Your task to perform on an android device: turn off priority inbox in the gmail app Image 0: 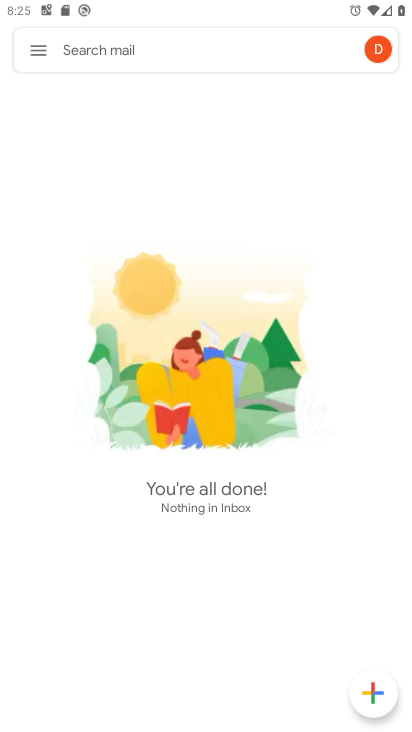
Step 0: press back button
Your task to perform on an android device: turn off priority inbox in the gmail app Image 1: 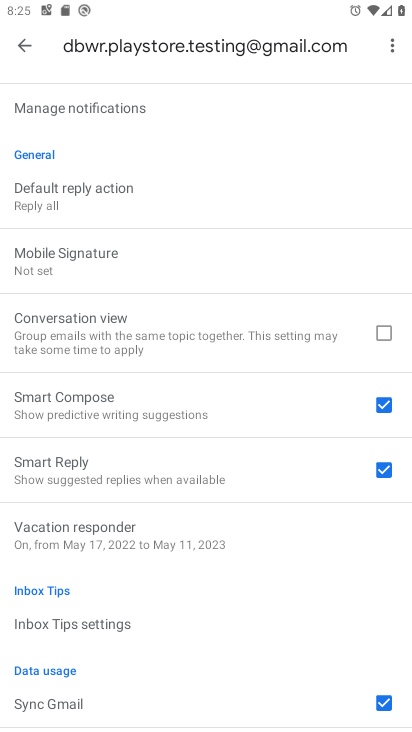
Step 1: drag from (110, 209) to (131, 613)
Your task to perform on an android device: turn off priority inbox in the gmail app Image 2: 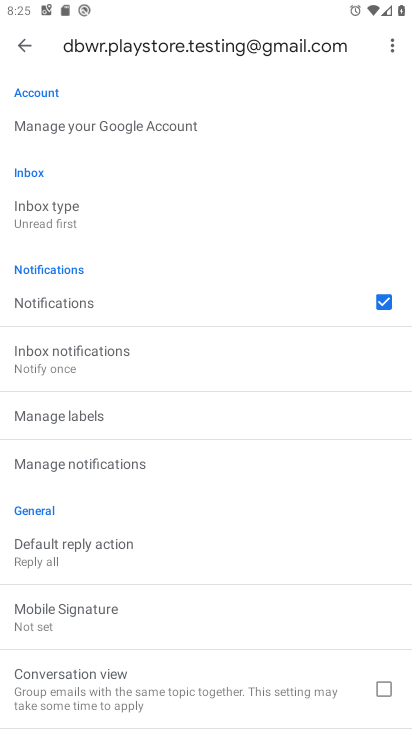
Step 2: click (50, 216)
Your task to perform on an android device: turn off priority inbox in the gmail app Image 3: 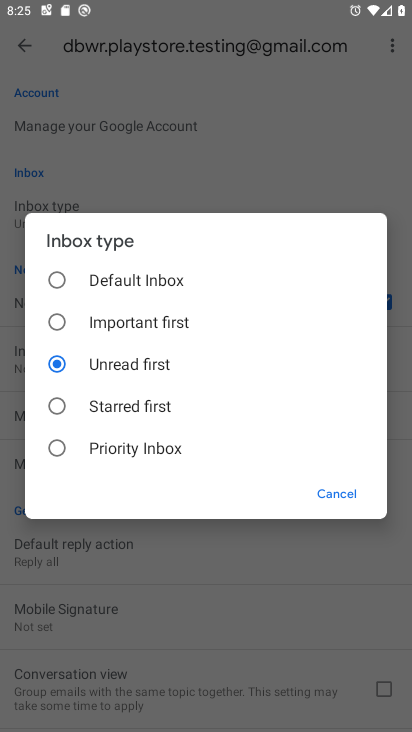
Step 3: click (122, 275)
Your task to perform on an android device: turn off priority inbox in the gmail app Image 4: 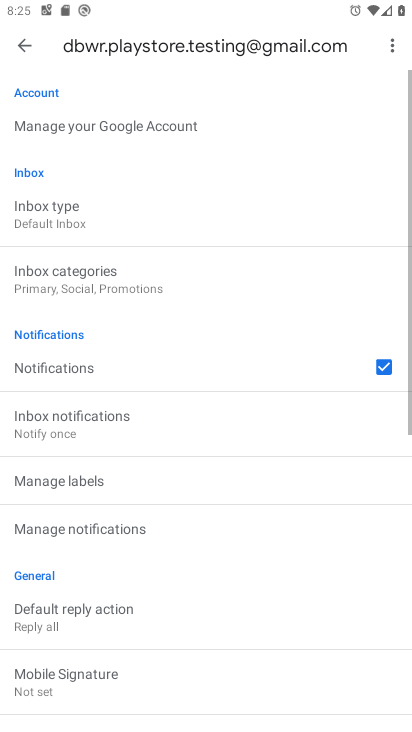
Step 4: task complete